Your task to perform on an android device: toggle show notifications on the lock screen Image 0: 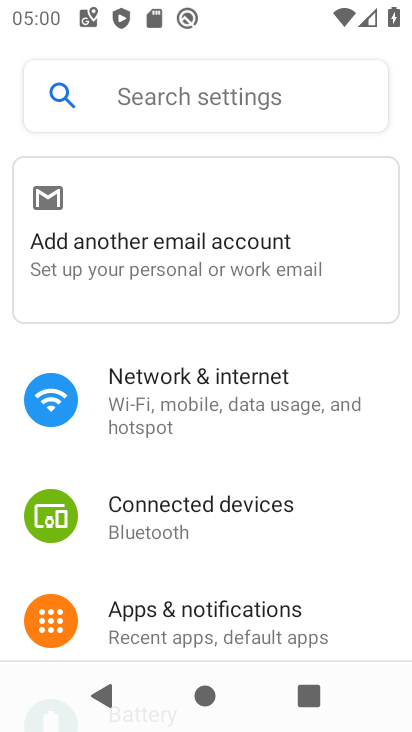
Step 0: click (150, 612)
Your task to perform on an android device: toggle show notifications on the lock screen Image 1: 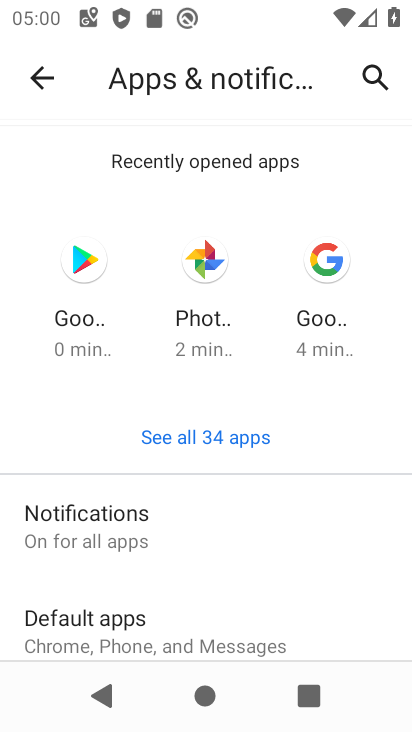
Step 1: click (108, 511)
Your task to perform on an android device: toggle show notifications on the lock screen Image 2: 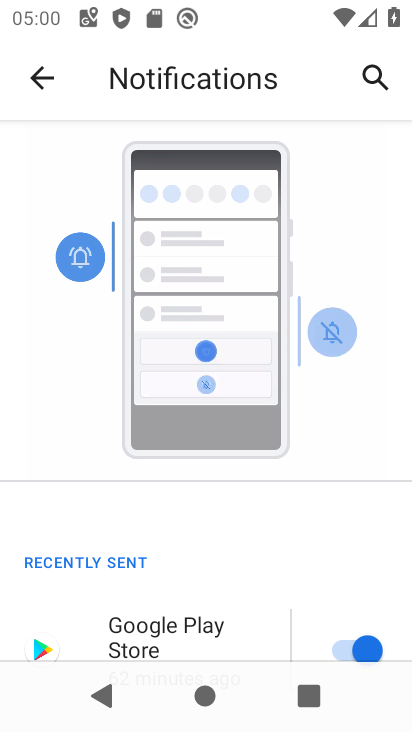
Step 2: drag from (219, 566) to (173, 261)
Your task to perform on an android device: toggle show notifications on the lock screen Image 3: 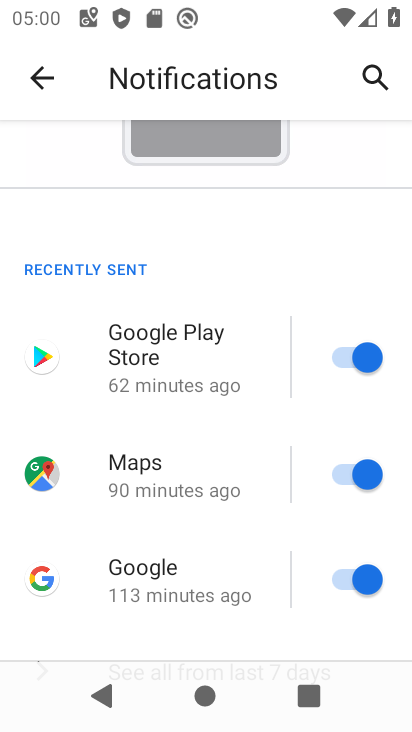
Step 3: drag from (150, 527) to (181, 316)
Your task to perform on an android device: toggle show notifications on the lock screen Image 4: 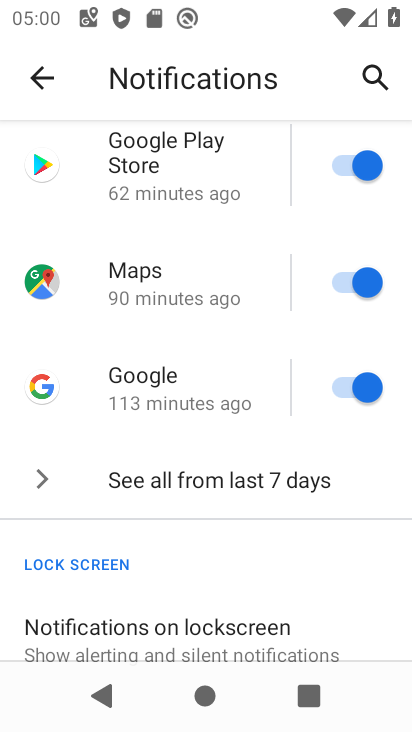
Step 4: drag from (151, 558) to (177, 400)
Your task to perform on an android device: toggle show notifications on the lock screen Image 5: 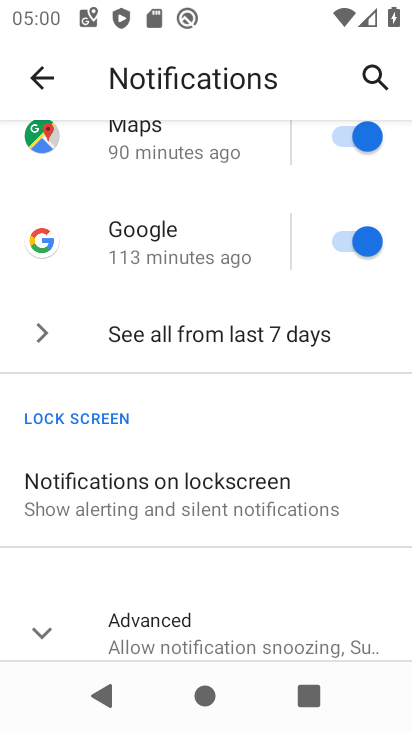
Step 5: click (148, 486)
Your task to perform on an android device: toggle show notifications on the lock screen Image 6: 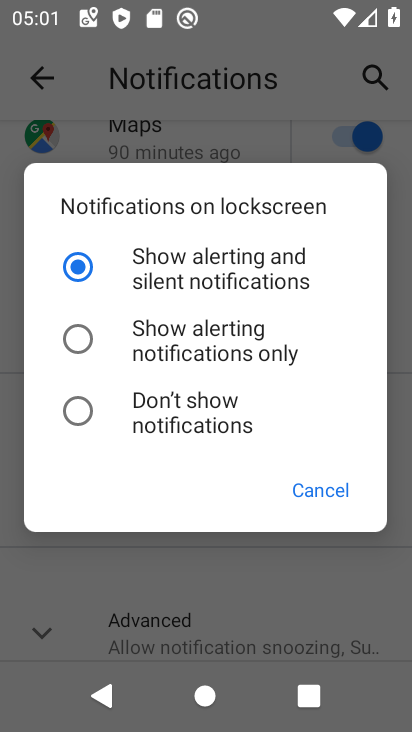
Step 6: click (63, 413)
Your task to perform on an android device: toggle show notifications on the lock screen Image 7: 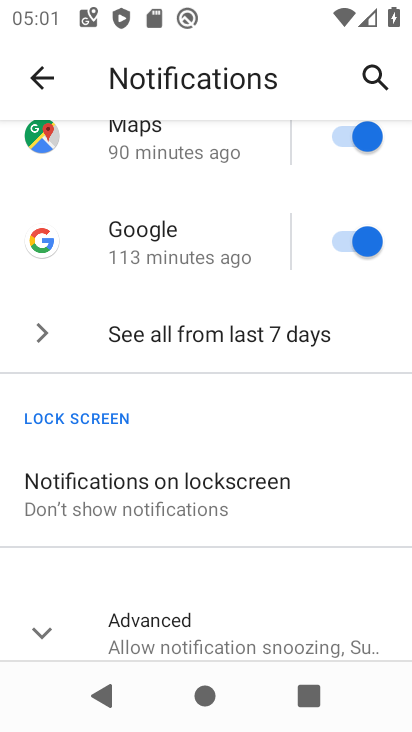
Step 7: task complete